Your task to perform on an android device: What's the weather going to be this weekend? Image 0: 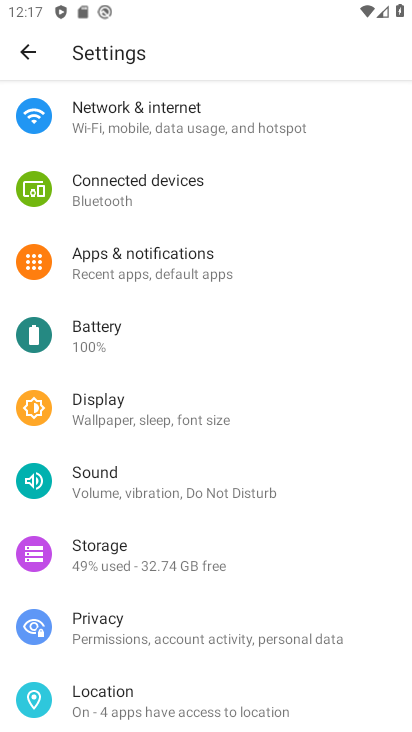
Step 0: press back button
Your task to perform on an android device: What's the weather going to be this weekend? Image 1: 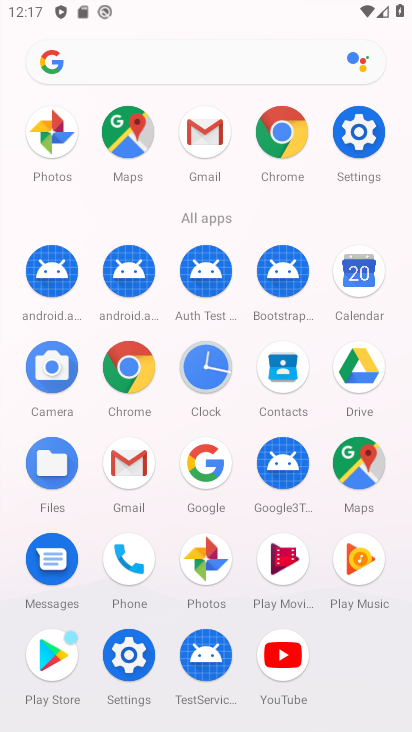
Step 1: press back button
Your task to perform on an android device: What's the weather going to be this weekend? Image 2: 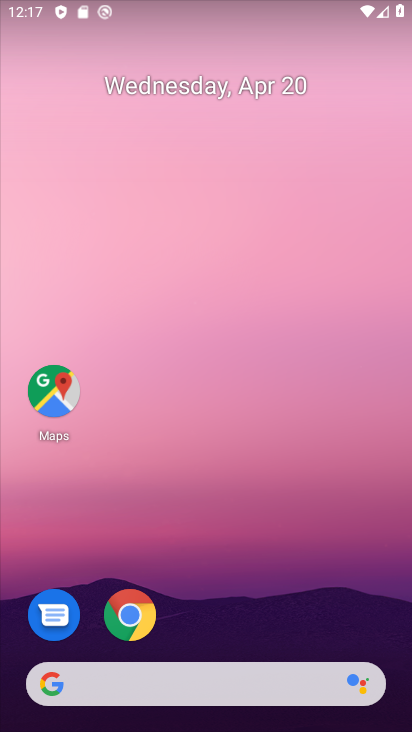
Step 2: drag from (6, 464) to (331, 409)
Your task to perform on an android device: What's the weather going to be this weekend? Image 3: 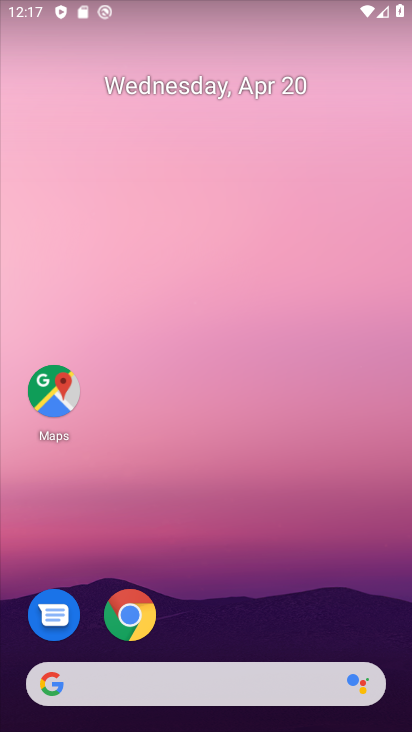
Step 3: drag from (1, 275) to (409, 242)
Your task to perform on an android device: What's the weather going to be this weekend? Image 4: 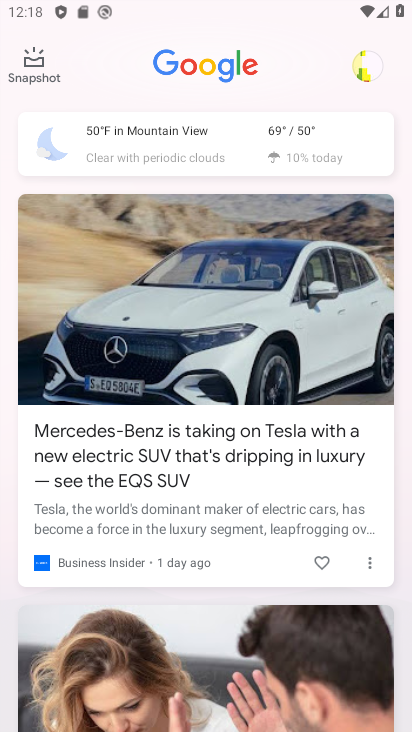
Step 4: click (285, 157)
Your task to perform on an android device: What's the weather going to be this weekend? Image 5: 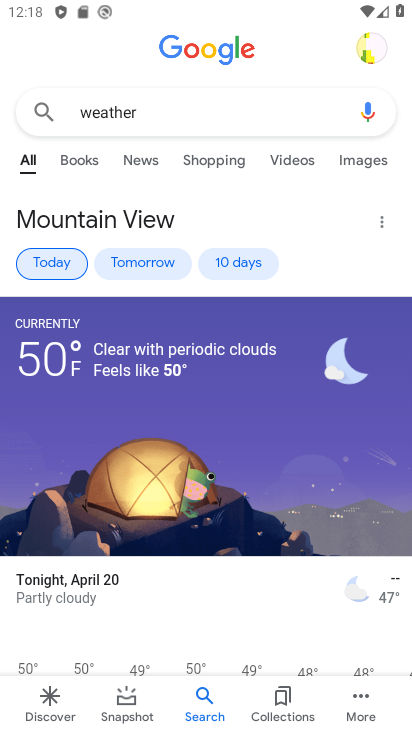
Step 5: click (240, 268)
Your task to perform on an android device: What's the weather going to be this weekend? Image 6: 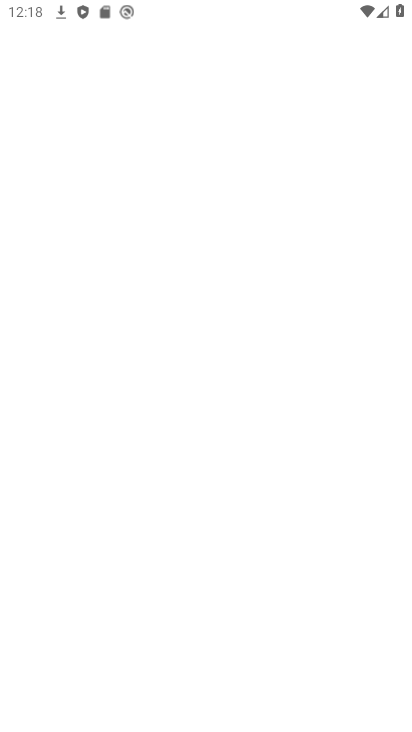
Step 6: click (239, 272)
Your task to perform on an android device: What's the weather going to be this weekend? Image 7: 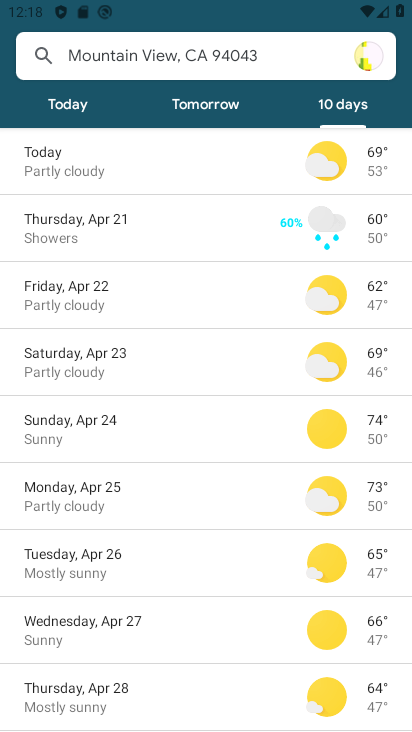
Step 7: task complete